Your task to perform on an android device: empty trash in google photos Image 0: 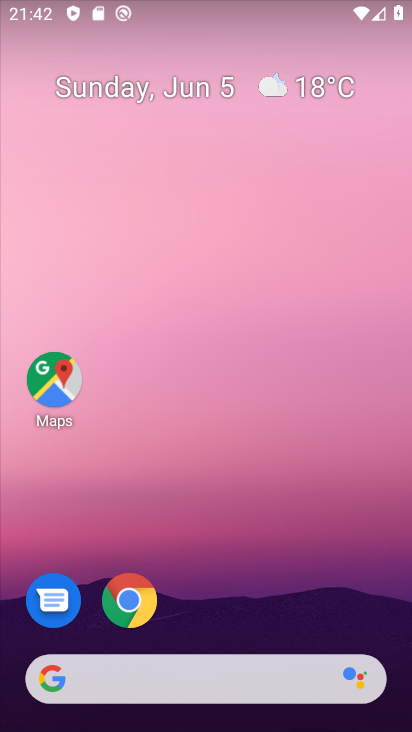
Step 0: drag from (245, 533) to (191, 120)
Your task to perform on an android device: empty trash in google photos Image 1: 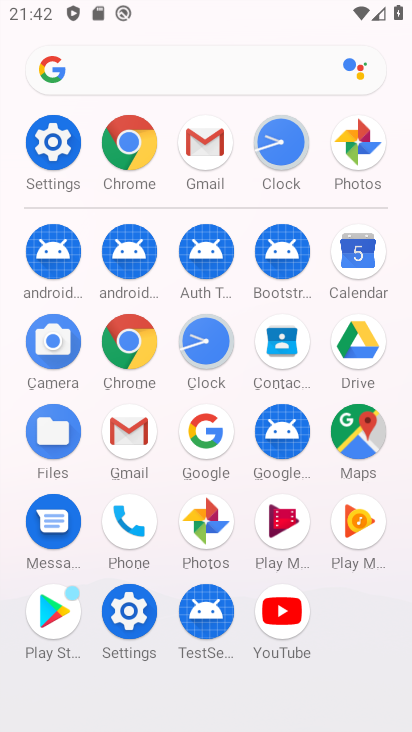
Step 1: click (215, 524)
Your task to perform on an android device: empty trash in google photos Image 2: 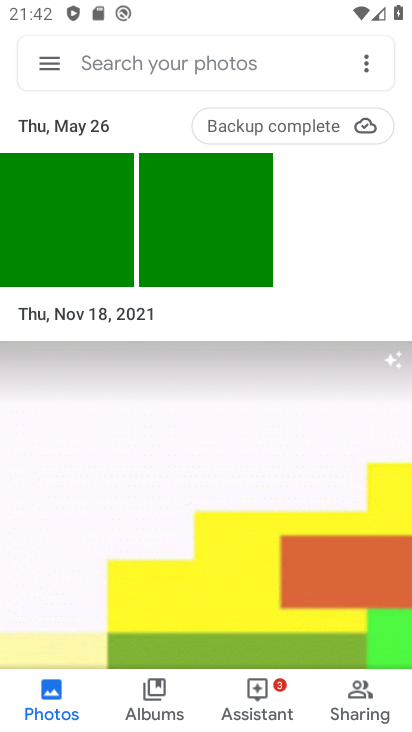
Step 2: click (48, 67)
Your task to perform on an android device: empty trash in google photos Image 3: 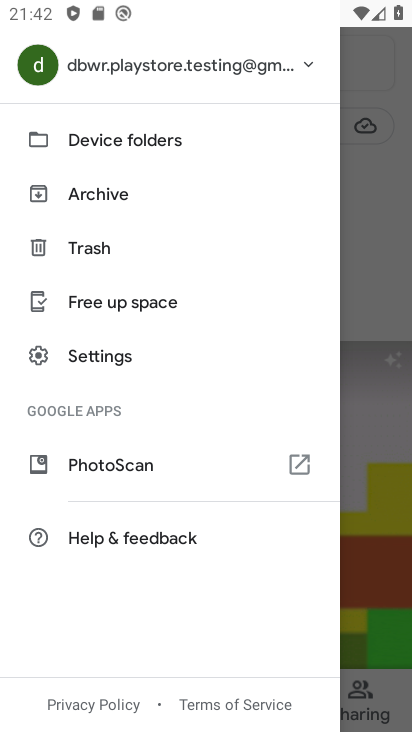
Step 3: click (104, 251)
Your task to perform on an android device: empty trash in google photos Image 4: 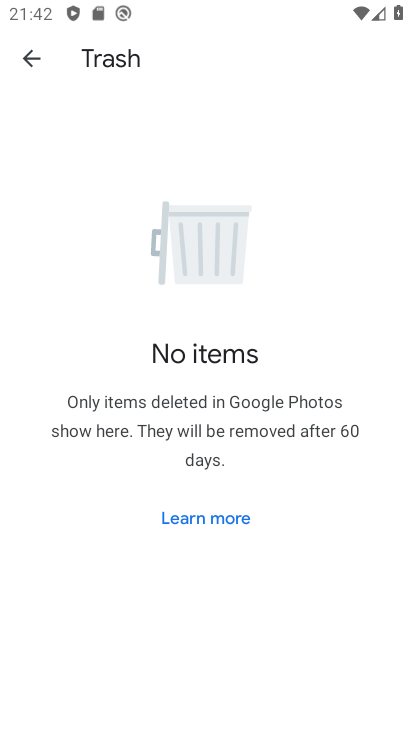
Step 4: task complete